Your task to perform on an android device: check out phone information Image 0: 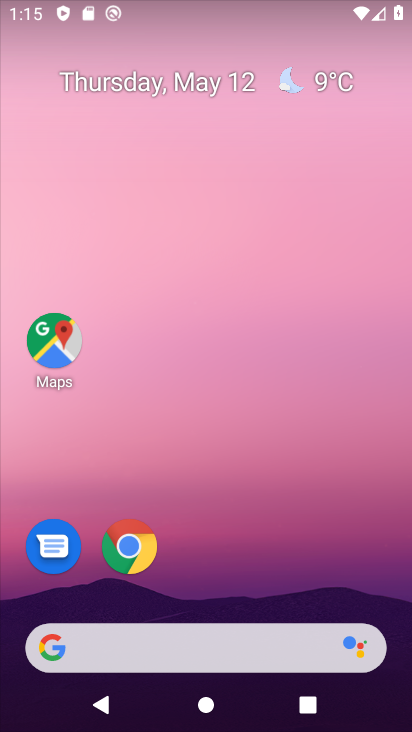
Step 0: drag from (260, 682) to (293, 298)
Your task to perform on an android device: check out phone information Image 1: 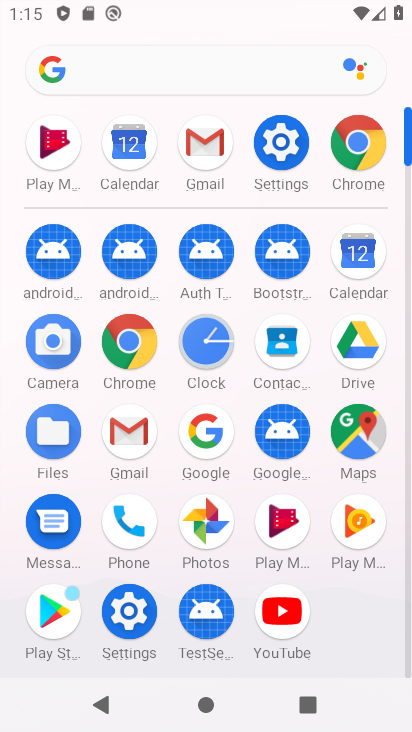
Step 1: click (277, 149)
Your task to perform on an android device: check out phone information Image 2: 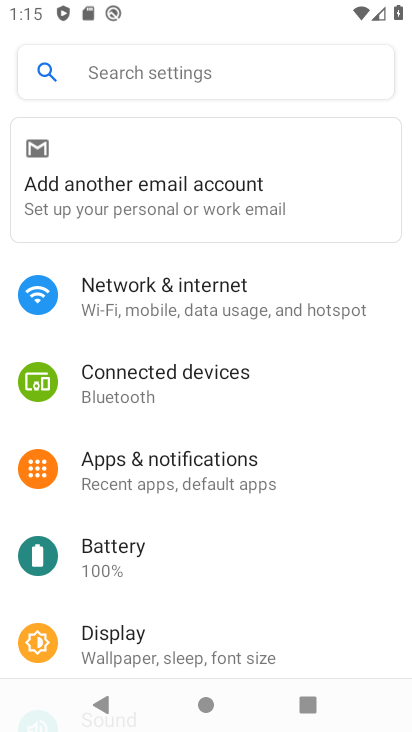
Step 2: click (207, 71)
Your task to perform on an android device: check out phone information Image 3: 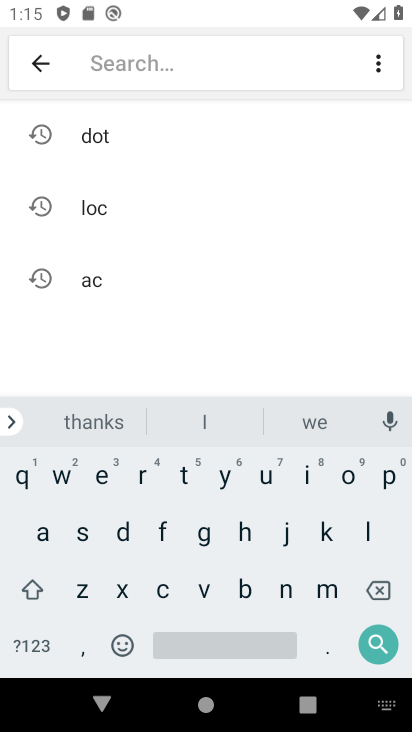
Step 3: click (42, 540)
Your task to perform on an android device: check out phone information Image 4: 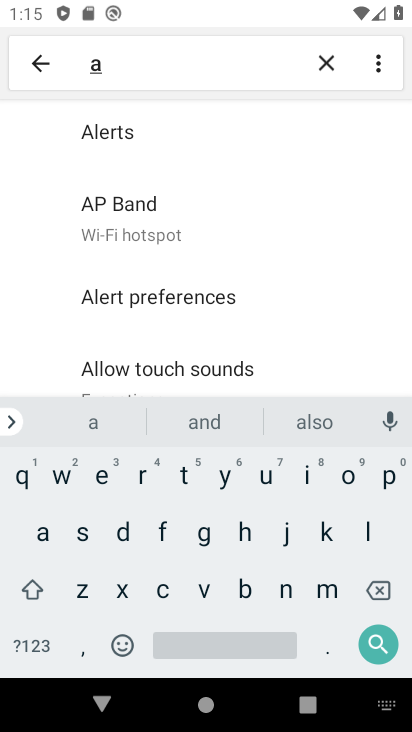
Step 4: click (239, 589)
Your task to perform on an android device: check out phone information Image 5: 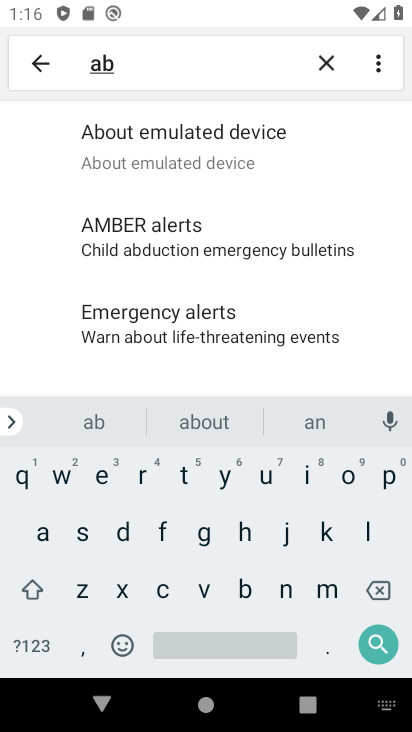
Step 5: click (218, 163)
Your task to perform on an android device: check out phone information Image 6: 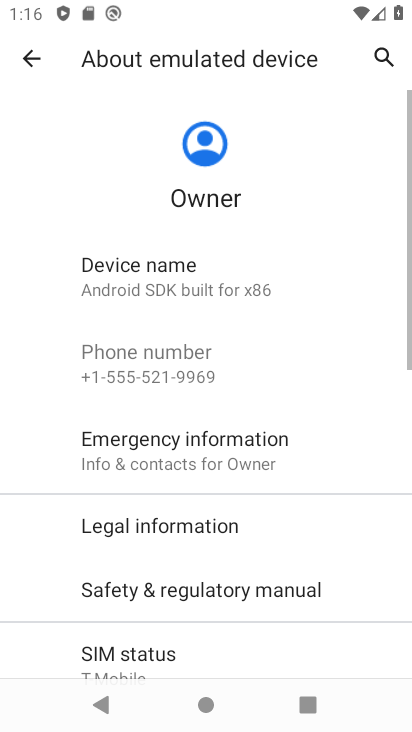
Step 6: task complete